Your task to perform on an android device: Is it going to rain tomorrow? Image 0: 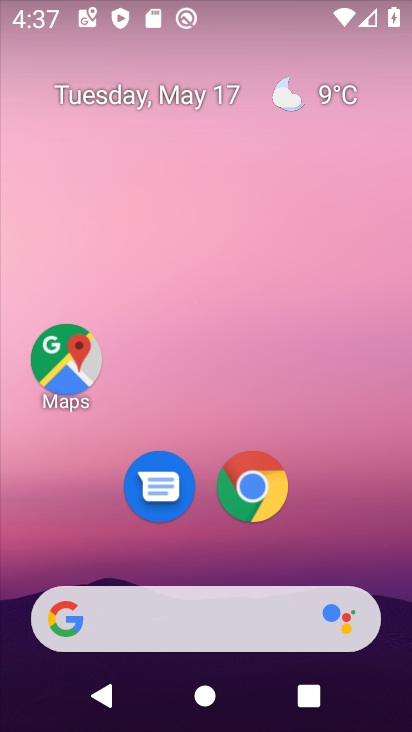
Step 0: click (269, 503)
Your task to perform on an android device: Is it going to rain tomorrow? Image 1: 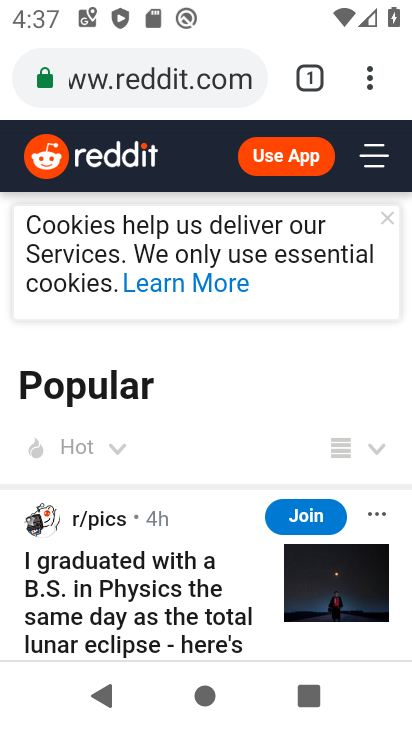
Step 1: click (209, 66)
Your task to perform on an android device: Is it going to rain tomorrow? Image 2: 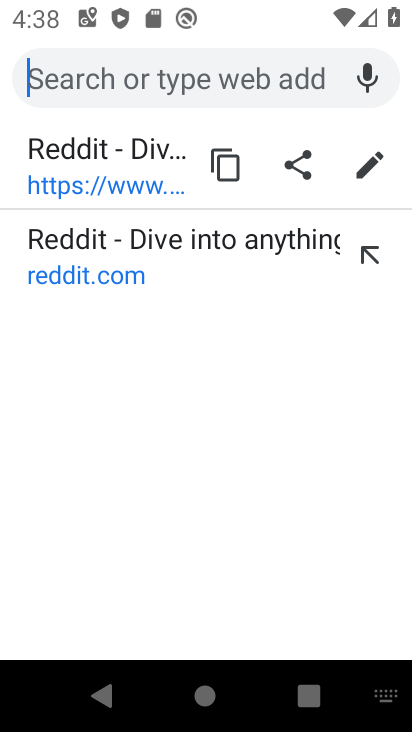
Step 2: type "Is it going to rain tomorrow?"
Your task to perform on an android device: Is it going to rain tomorrow? Image 3: 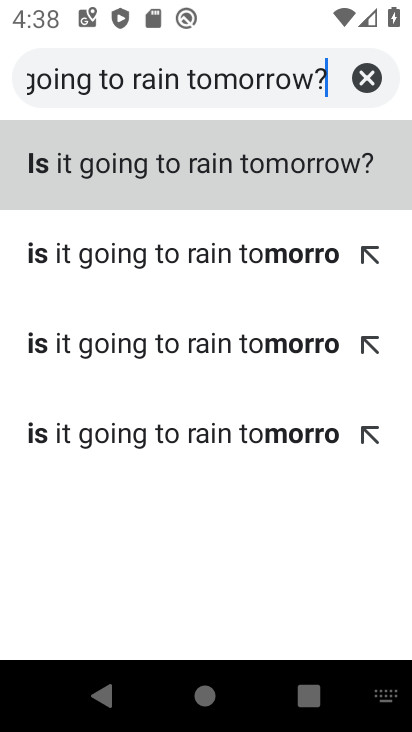
Step 3: click (252, 172)
Your task to perform on an android device: Is it going to rain tomorrow? Image 4: 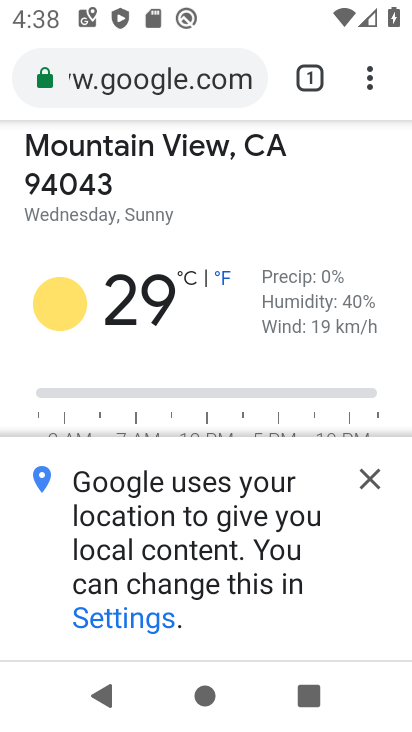
Step 4: click (369, 472)
Your task to perform on an android device: Is it going to rain tomorrow? Image 5: 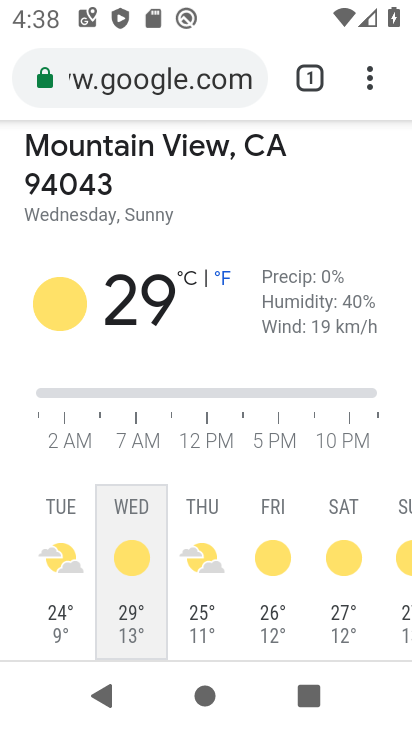
Step 5: task complete